Your task to perform on an android device: see tabs open on other devices in the chrome app Image 0: 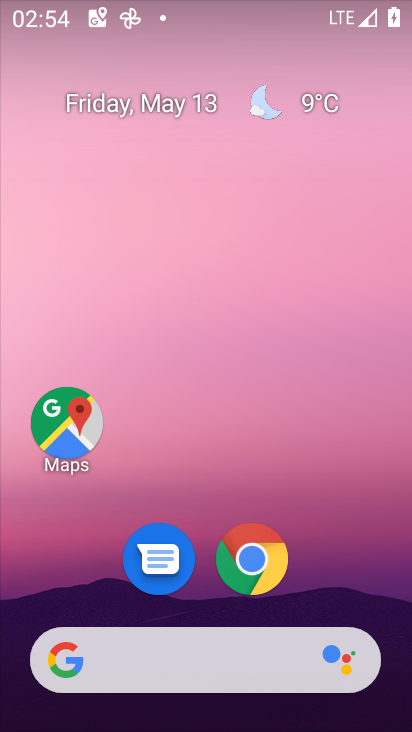
Step 0: click (245, 560)
Your task to perform on an android device: see tabs open on other devices in the chrome app Image 1: 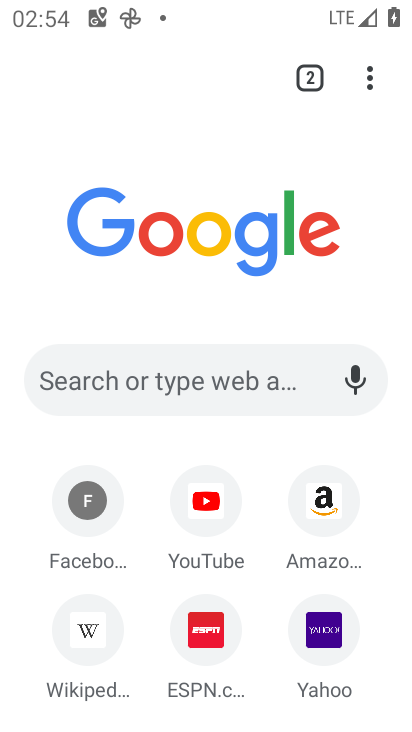
Step 1: click (371, 67)
Your task to perform on an android device: see tabs open on other devices in the chrome app Image 2: 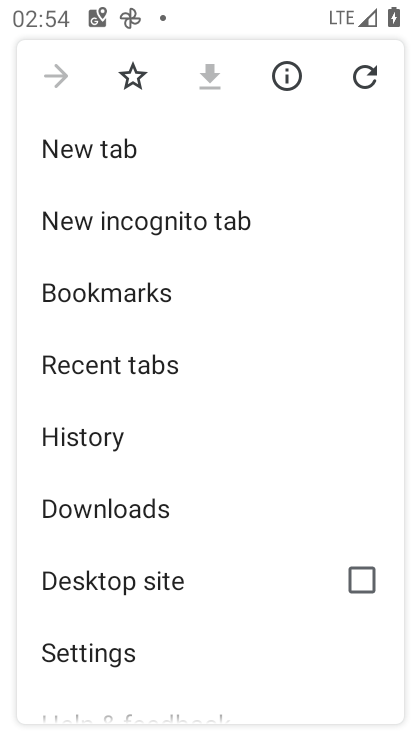
Step 2: drag from (251, 636) to (290, 306)
Your task to perform on an android device: see tabs open on other devices in the chrome app Image 3: 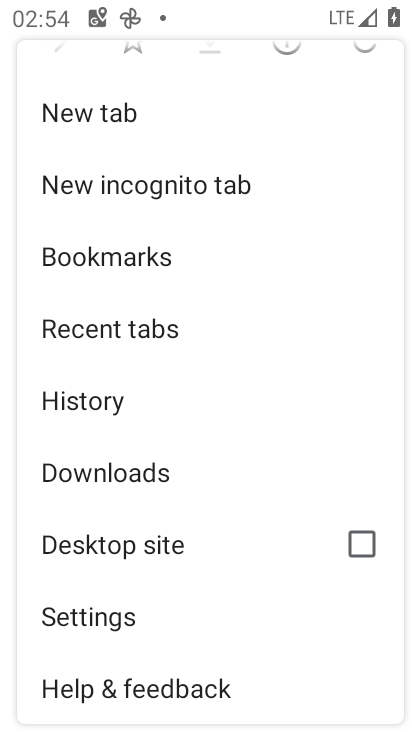
Step 3: click (82, 331)
Your task to perform on an android device: see tabs open on other devices in the chrome app Image 4: 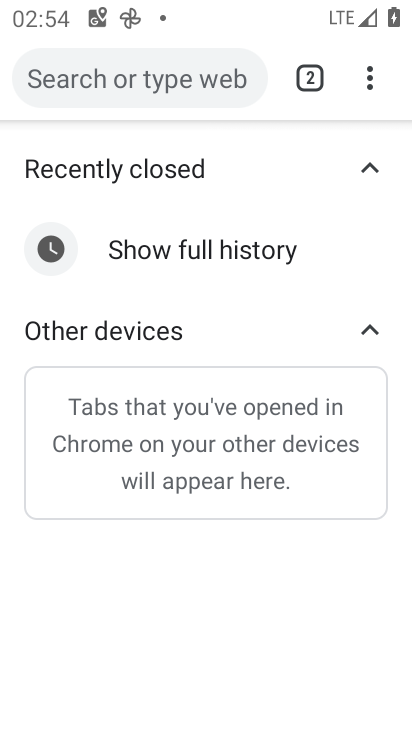
Step 4: task complete